Your task to perform on an android device: open chrome and create a bookmark for the current page Image 0: 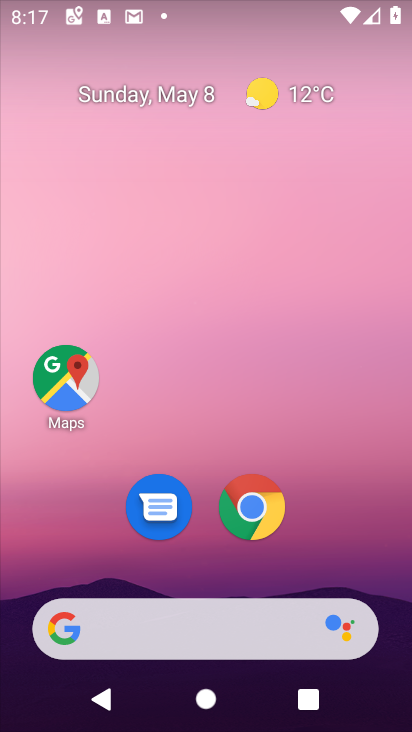
Step 0: click (246, 513)
Your task to perform on an android device: open chrome and create a bookmark for the current page Image 1: 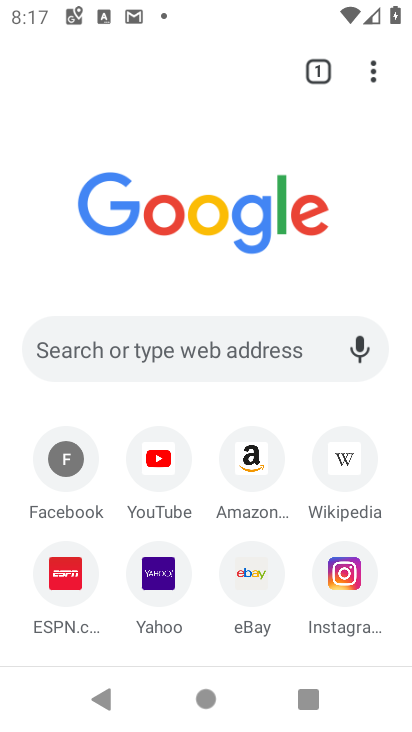
Step 1: click (368, 70)
Your task to perform on an android device: open chrome and create a bookmark for the current page Image 2: 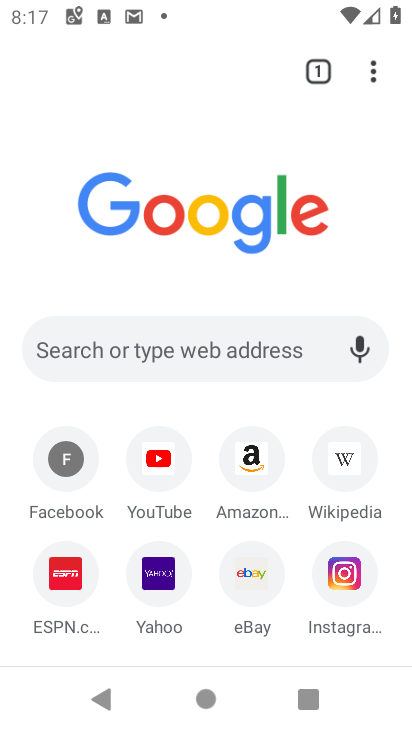
Step 2: click (176, 351)
Your task to perform on an android device: open chrome and create a bookmark for the current page Image 3: 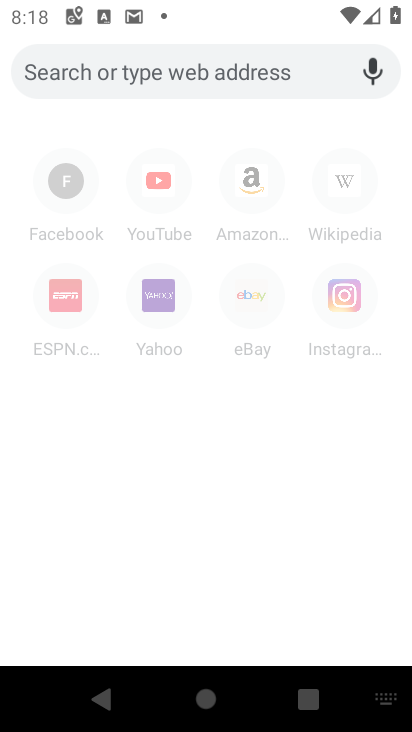
Step 3: type "fristcry.com"
Your task to perform on an android device: open chrome and create a bookmark for the current page Image 4: 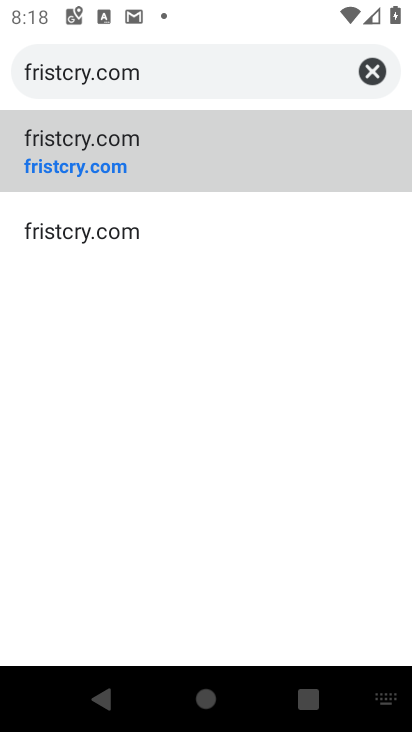
Step 4: click (137, 152)
Your task to perform on an android device: open chrome and create a bookmark for the current page Image 5: 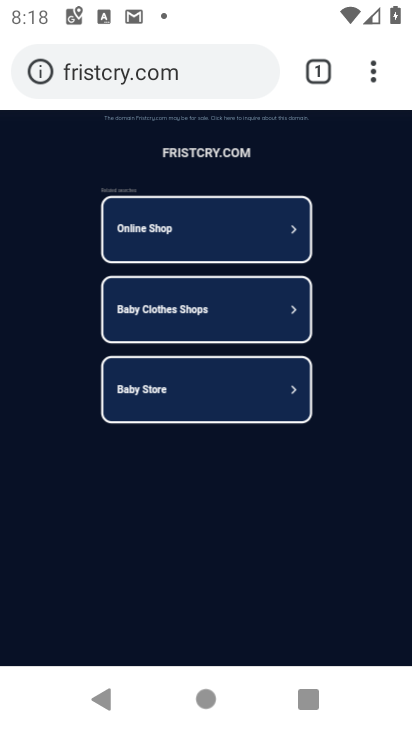
Step 5: click (372, 69)
Your task to perform on an android device: open chrome and create a bookmark for the current page Image 6: 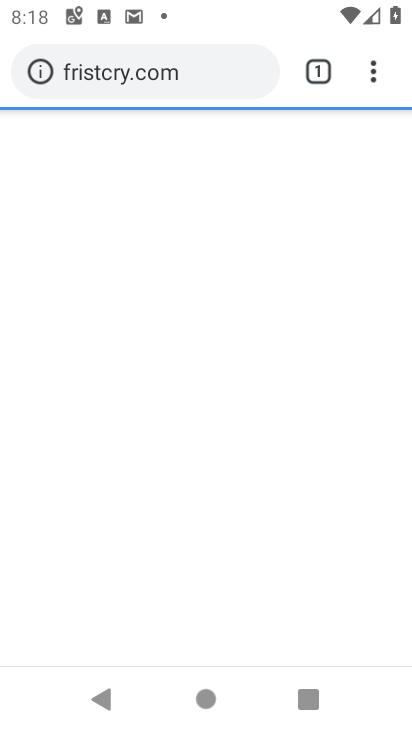
Step 6: click (144, 67)
Your task to perform on an android device: open chrome and create a bookmark for the current page Image 7: 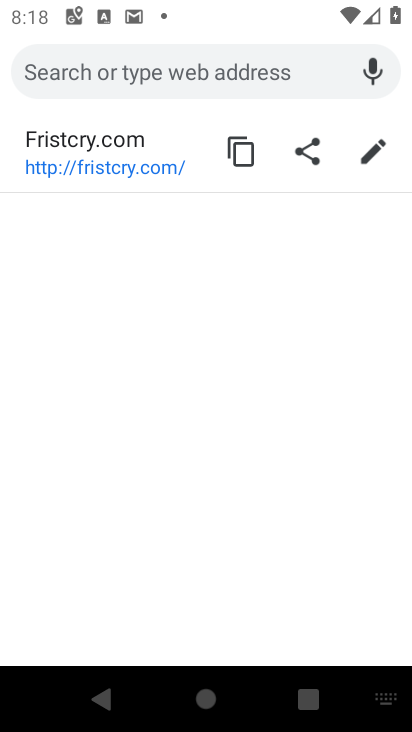
Step 7: click (136, 164)
Your task to perform on an android device: open chrome and create a bookmark for the current page Image 8: 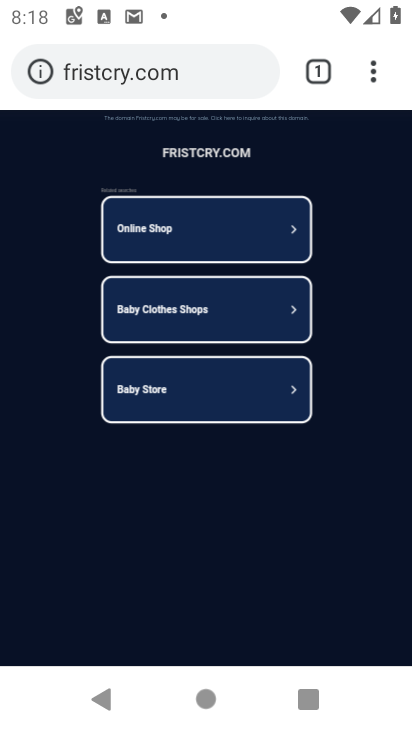
Step 8: click (368, 79)
Your task to perform on an android device: open chrome and create a bookmark for the current page Image 9: 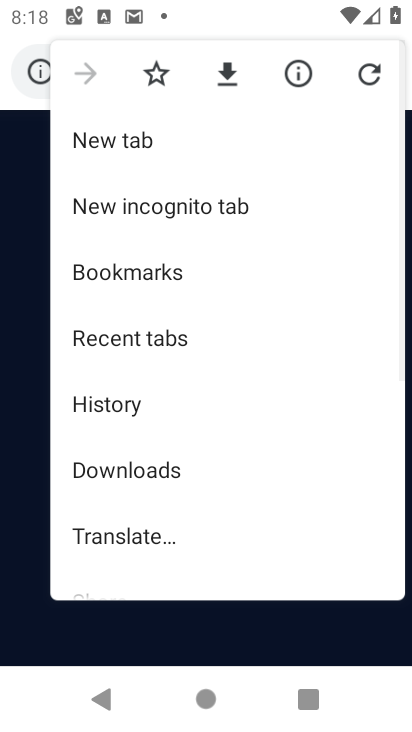
Step 9: click (154, 74)
Your task to perform on an android device: open chrome and create a bookmark for the current page Image 10: 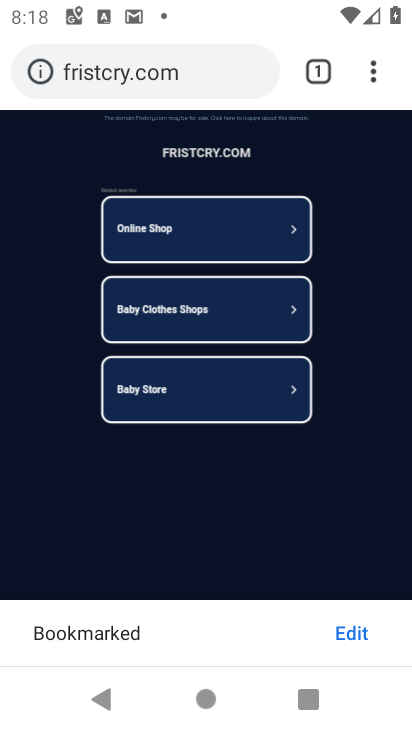
Step 10: task complete